Your task to perform on an android device: Open display settings Image 0: 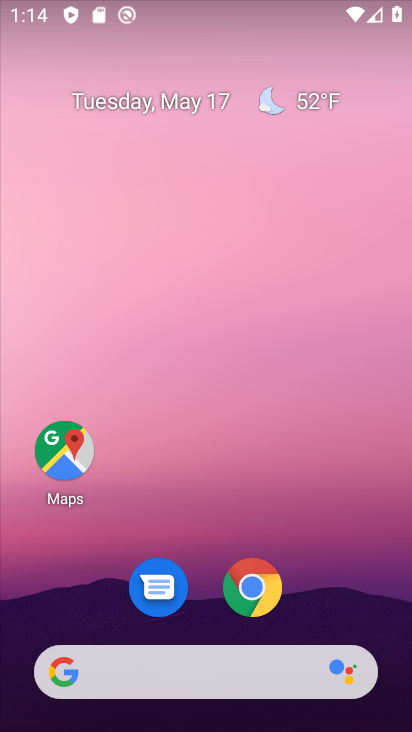
Step 0: drag from (351, 612) to (323, 84)
Your task to perform on an android device: Open display settings Image 1: 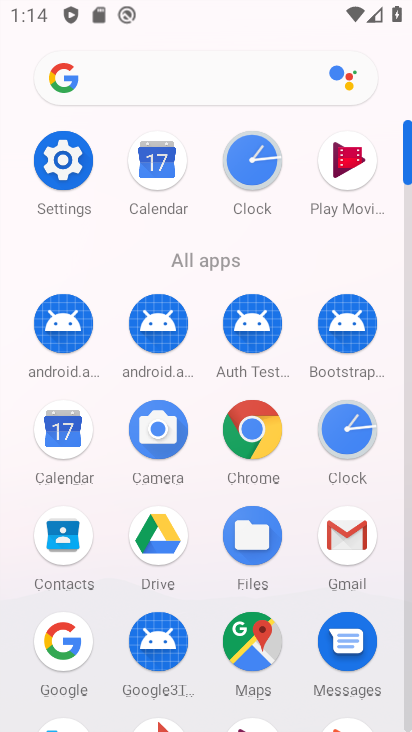
Step 1: click (67, 194)
Your task to perform on an android device: Open display settings Image 2: 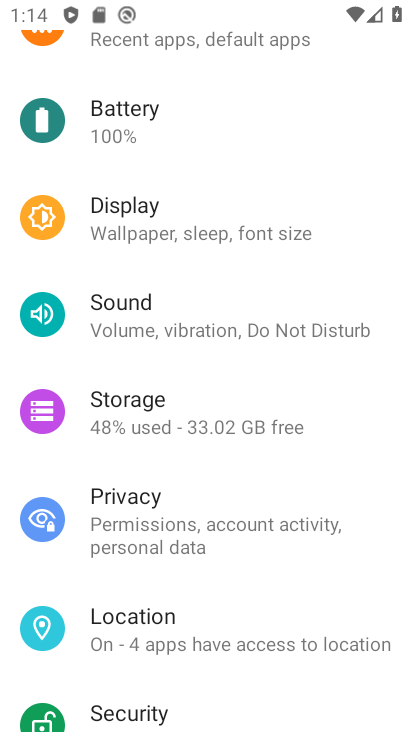
Step 2: click (161, 214)
Your task to perform on an android device: Open display settings Image 3: 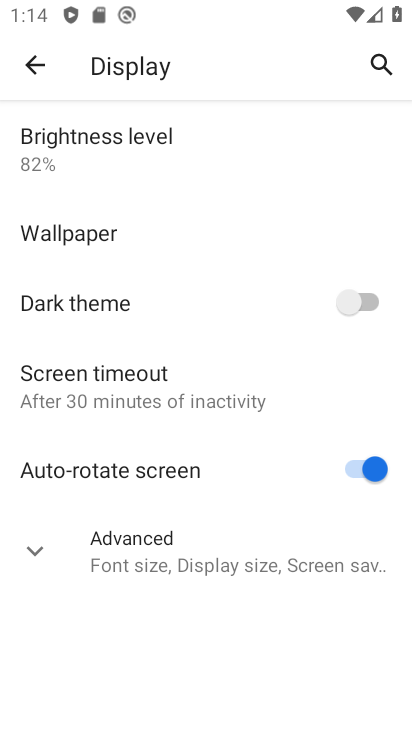
Step 3: task complete